Your task to perform on an android device: Search for Mexican restaurants on Maps Image 0: 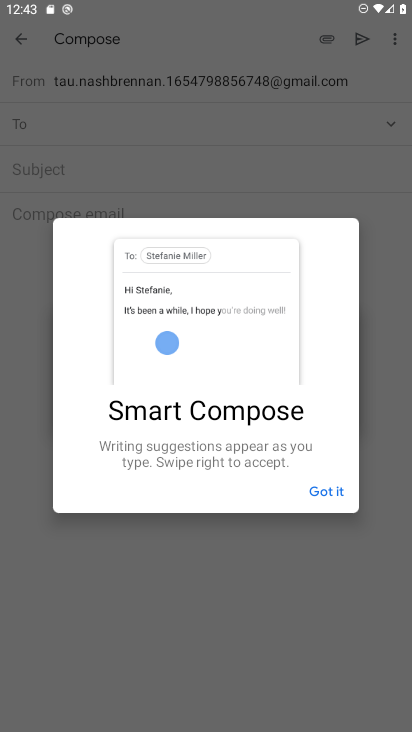
Step 0: press home button
Your task to perform on an android device: Search for Mexican restaurants on Maps Image 1: 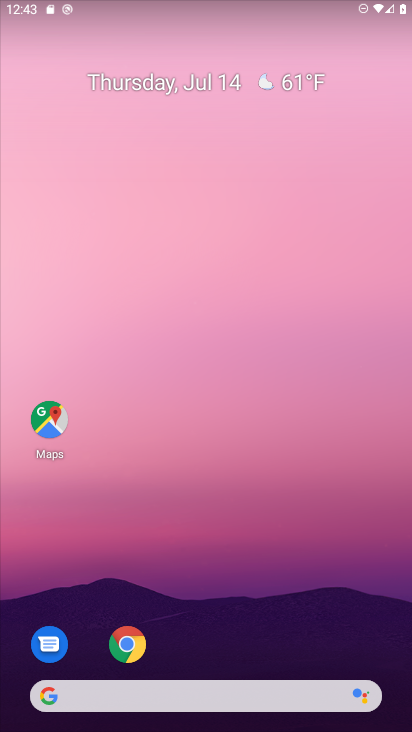
Step 1: drag from (286, 634) to (250, 145)
Your task to perform on an android device: Search for Mexican restaurants on Maps Image 2: 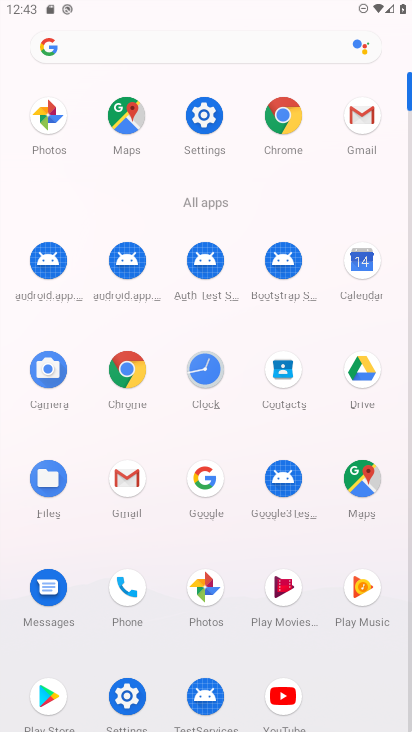
Step 2: click (125, 122)
Your task to perform on an android device: Search for Mexican restaurants on Maps Image 3: 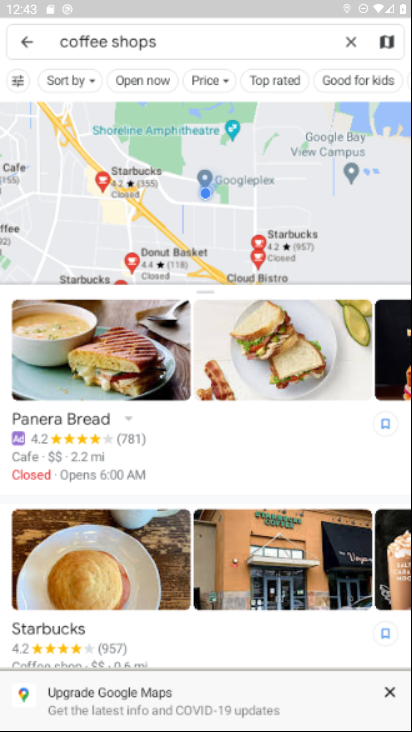
Step 3: click (205, 48)
Your task to perform on an android device: Search for Mexican restaurants on Maps Image 4: 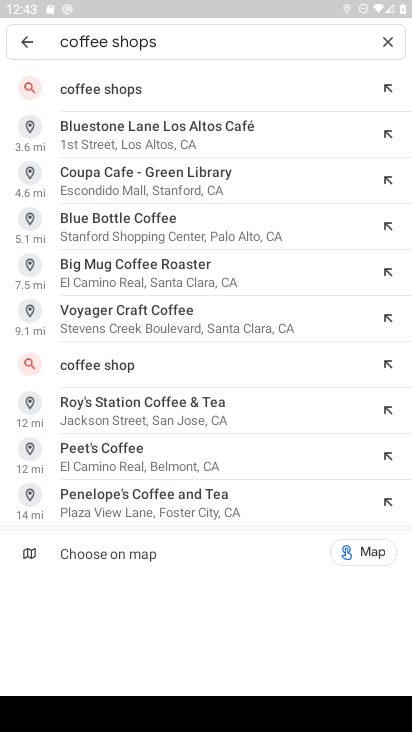
Step 4: click (389, 39)
Your task to perform on an android device: Search for Mexican restaurants on Maps Image 5: 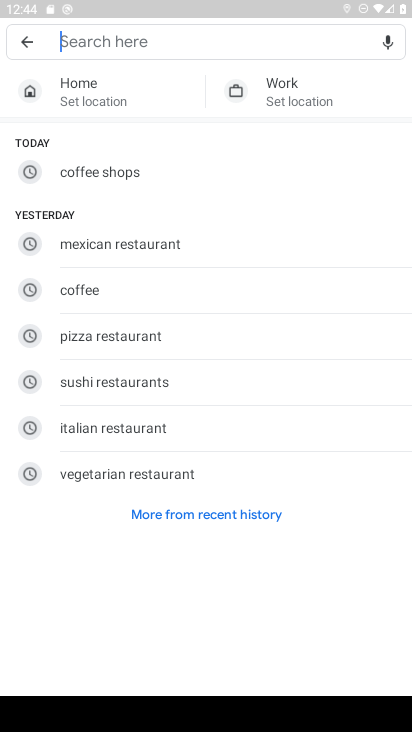
Step 5: type "Mexican restaurants"
Your task to perform on an android device: Search for Mexican restaurants on Maps Image 6: 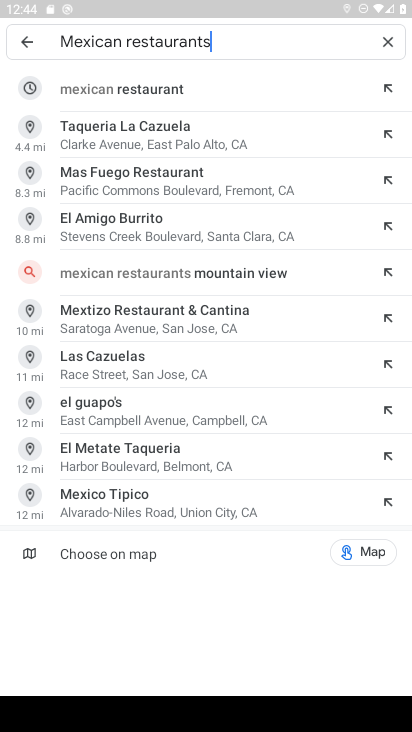
Step 6: press enter
Your task to perform on an android device: Search for Mexican restaurants on Maps Image 7: 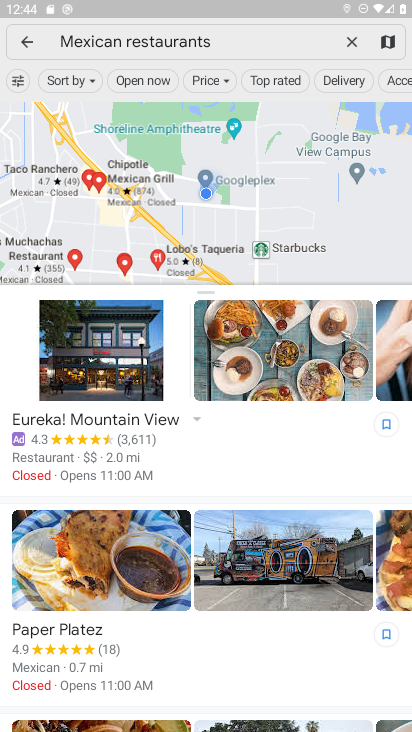
Step 7: task complete